Your task to perform on an android device: move a message to another label in the gmail app Image 0: 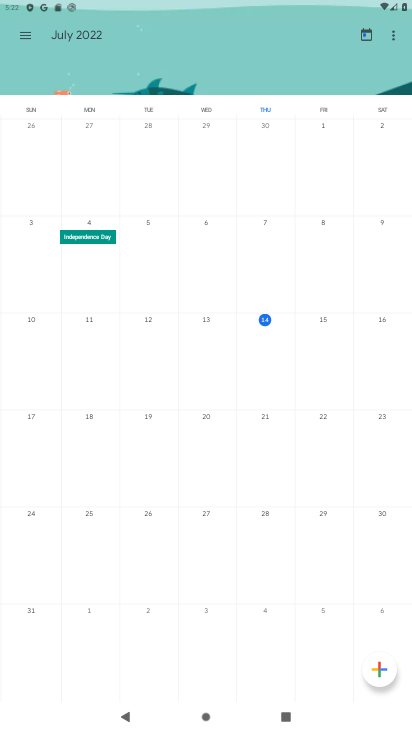
Step 0: press home button
Your task to perform on an android device: move a message to another label in the gmail app Image 1: 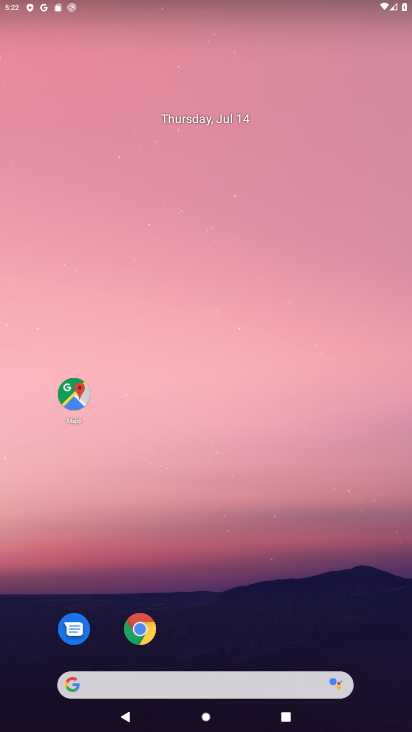
Step 1: drag from (365, 520) to (400, 71)
Your task to perform on an android device: move a message to another label in the gmail app Image 2: 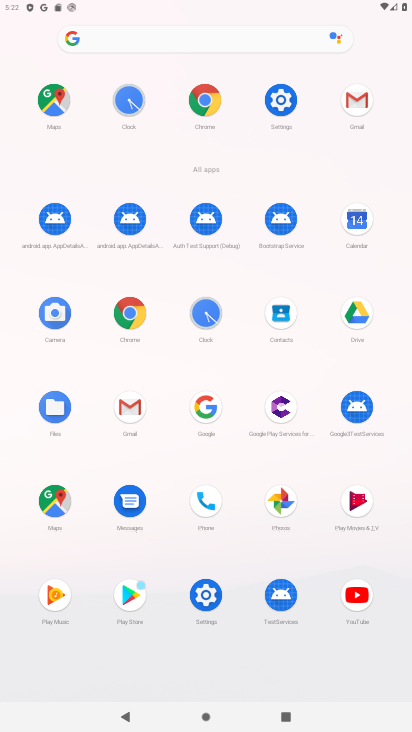
Step 2: click (138, 405)
Your task to perform on an android device: move a message to another label in the gmail app Image 3: 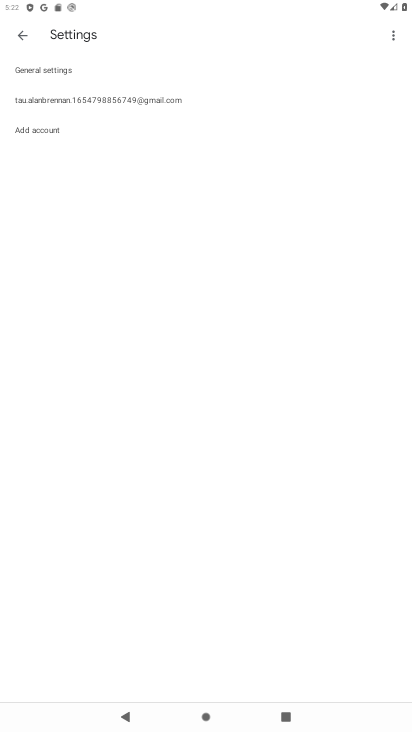
Step 3: press back button
Your task to perform on an android device: move a message to another label in the gmail app Image 4: 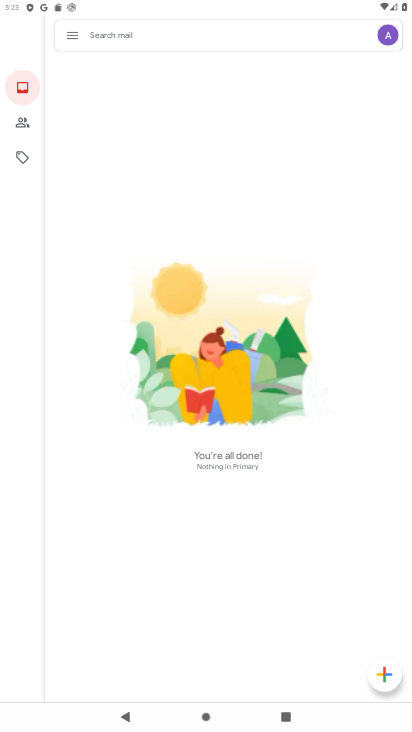
Step 4: click (24, 83)
Your task to perform on an android device: move a message to another label in the gmail app Image 5: 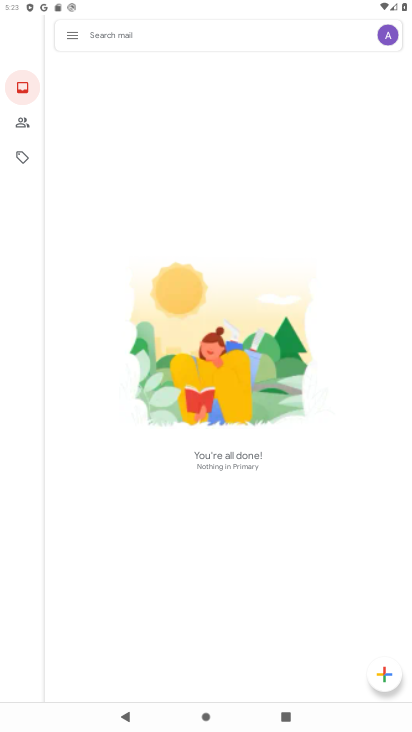
Step 5: click (75, 34)
Your task to perform on an android device: move a message to another label in the gmail app Image 6: 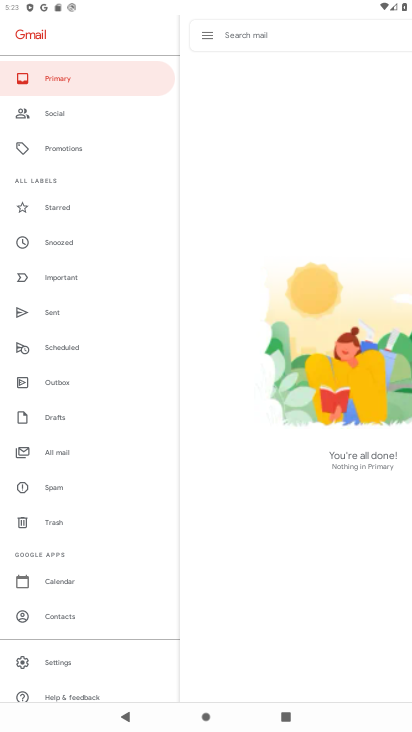
Step 6: click (102, 81)
Your task to perform on an android device: move a message to another label in the gmail app Image 7: 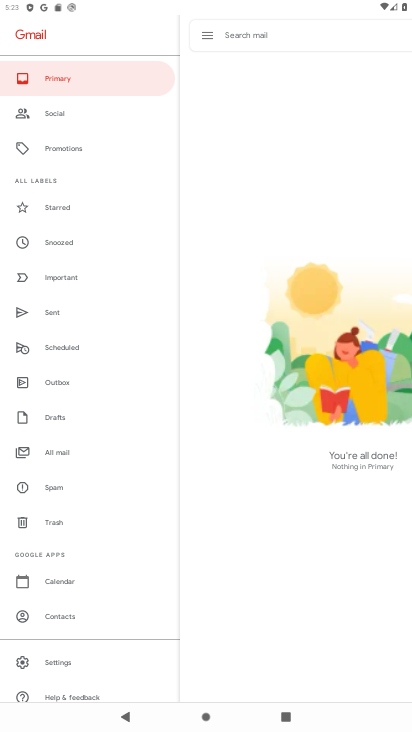
Step 7: task complete